Your task to perform on an android device: turn on wifi Image 0: 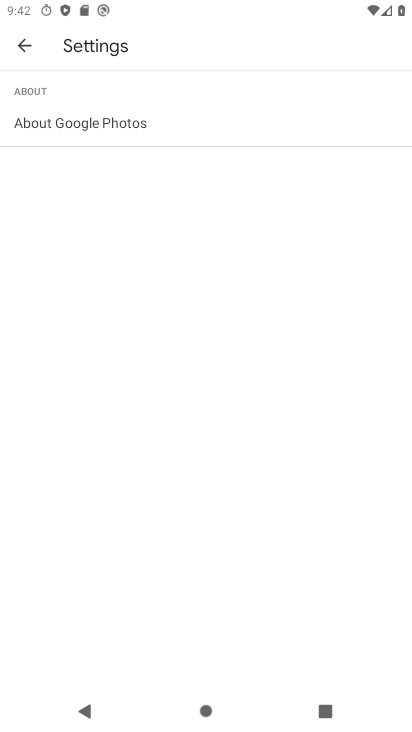
Step 0: press home button
Your task to perform on an android device: turn on wifi Image 1: 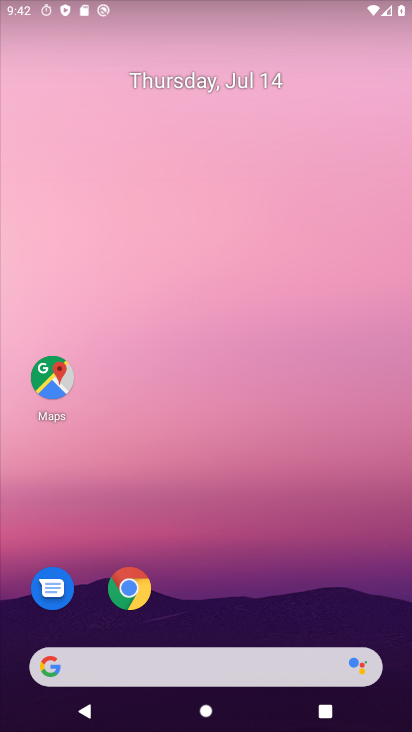
Step 1: task complete